Your task to perform on an android device: Open a new Chrome incognito tab Image 0: 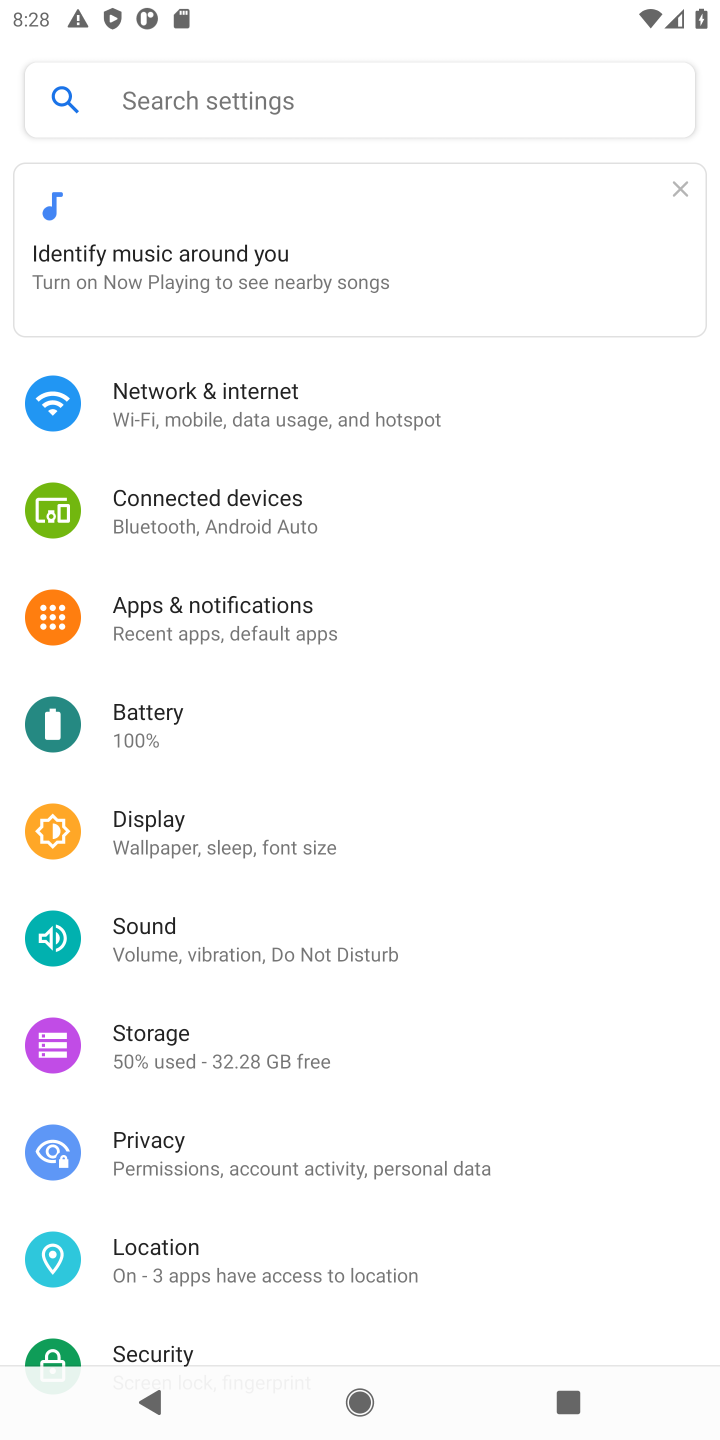
Step 0: press home button
Your task to perform on an android device: Open a new Chrome incognito tab Image 1: 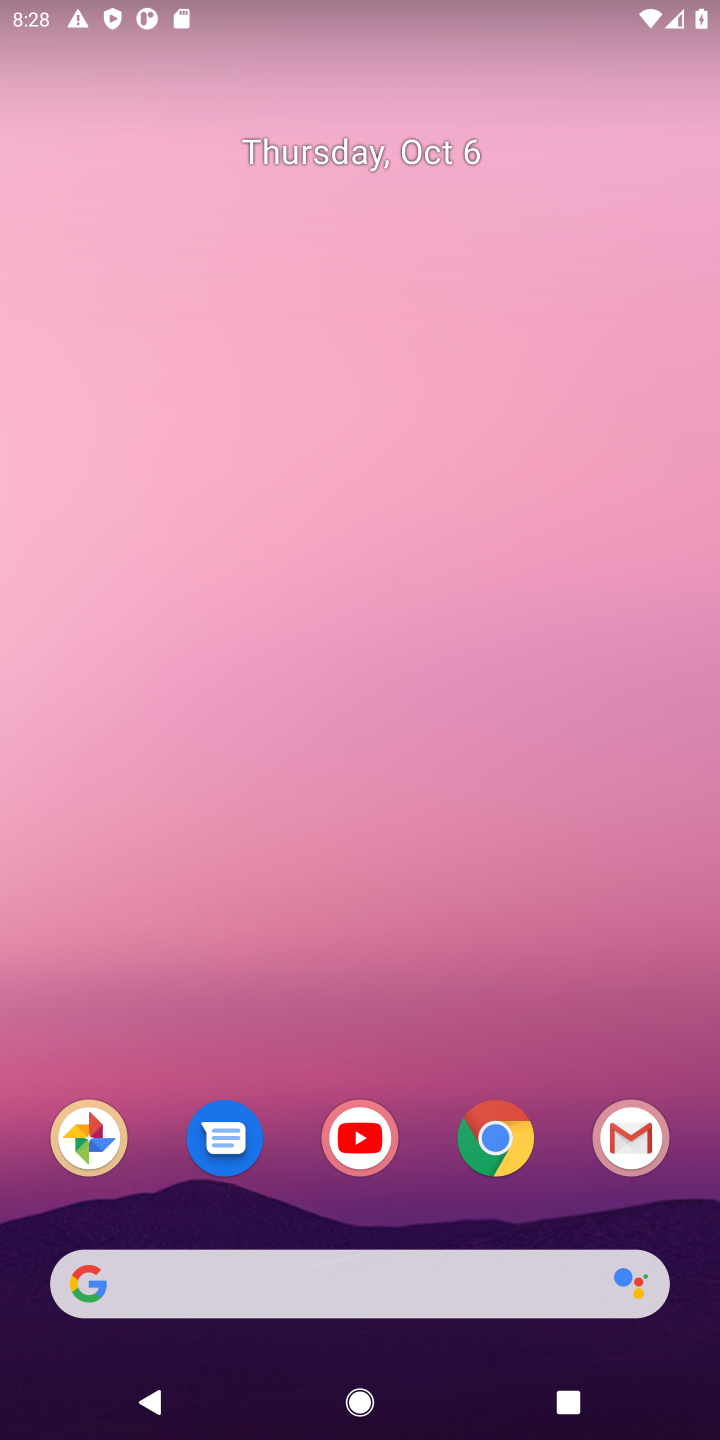
Step 1: click (500, 1125)
Your task to perform on an android device: Open a new Chrome incognito tab Image 2: 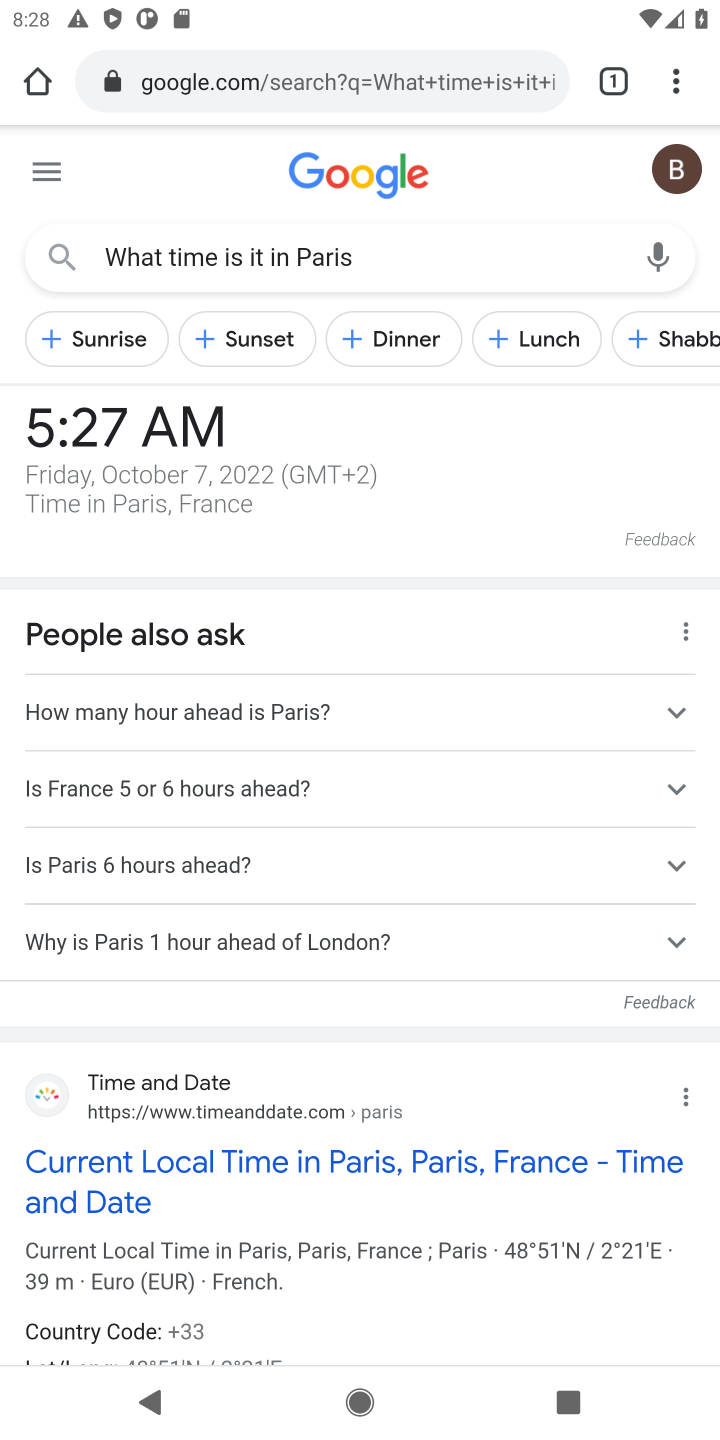
Step 2: task complete